Your task to perform on an android device: Open Reddit.com Image 0: 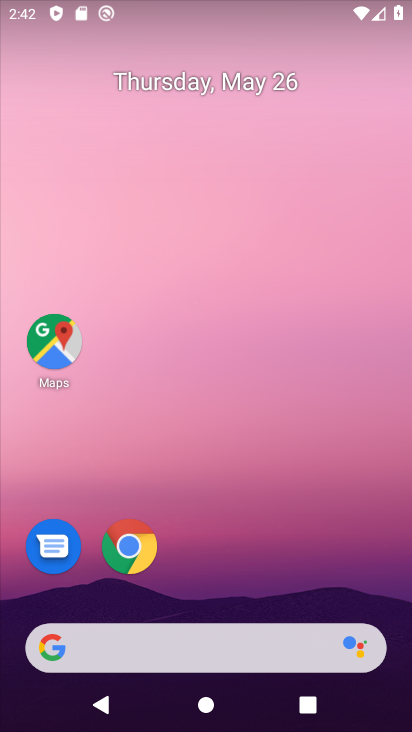
Step 0: click (133, 552)
Your task to perform on an android device: Open Reddit.com Image 1: 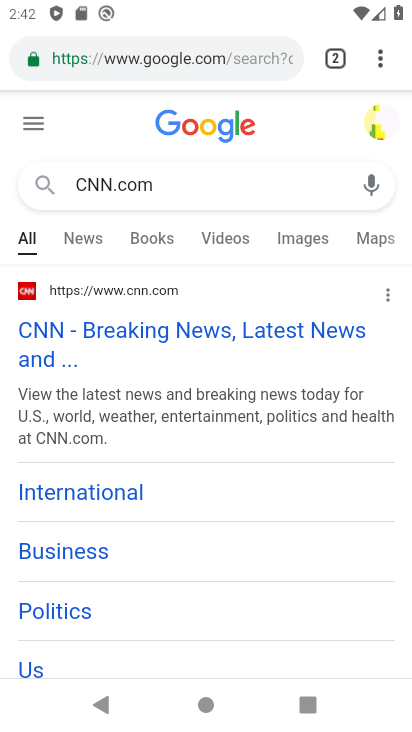
Step 1: click (294, 55)
Your task to perform on an android device: Open Reddit.com Image 2: 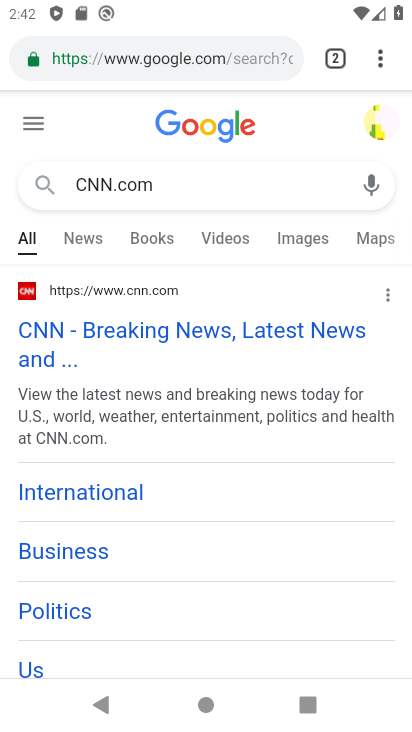
Step 2: click (290, 56)
Your task to perform on an android device: Open Reddit.com Image 3: 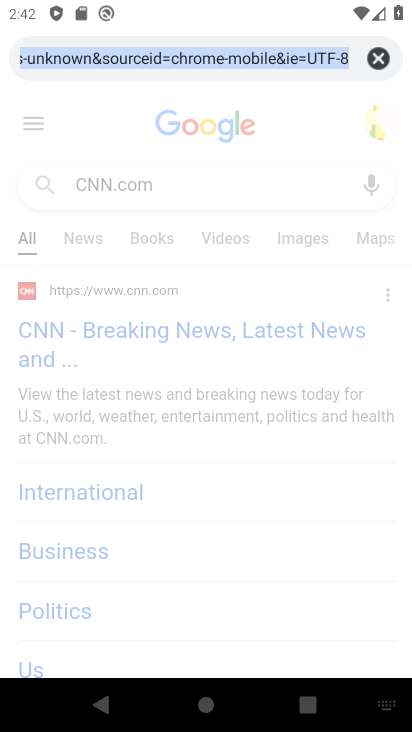
Step 3: click (376, 54)
Your task to perform on an android device: Open Reddit.com Image 4: 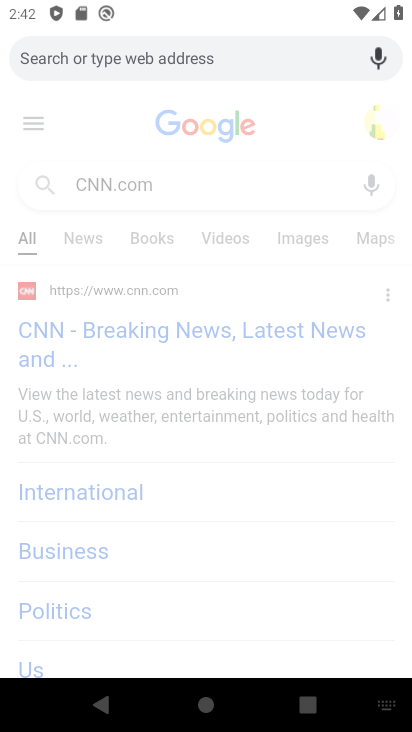
Step 4: click (161, 57)
Your task to perform on an android device: Open Reddit.com Image 5: 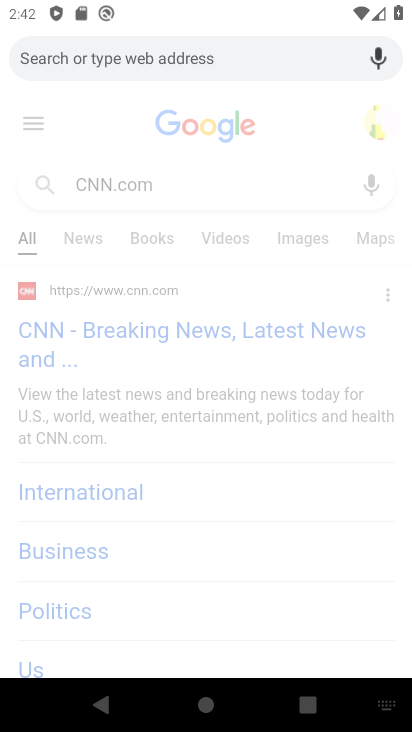
Step 5: type "Reddit.com"
Your task to perform on an android device: Open Reddit.com Image 6: 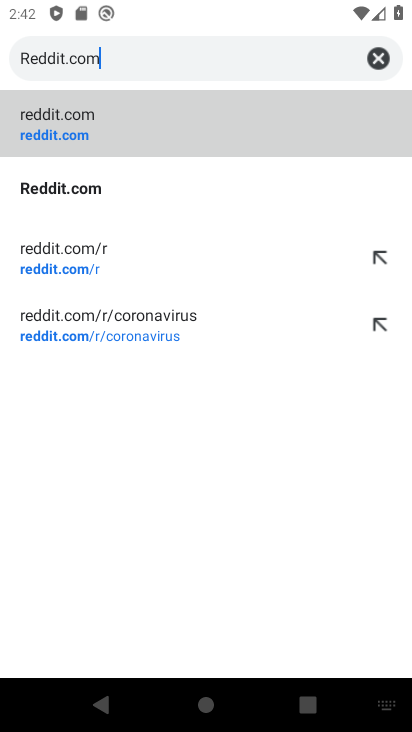
Step 6: click (49, 183)
Your task to perform on an android device: Open Reddit.com Image 7: 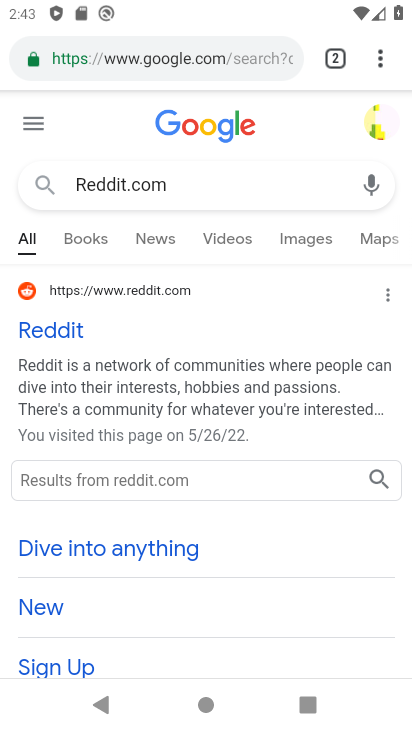
Step 7: task complete